Your task to perform on an android device: turn off improve location accuracy Image 0: 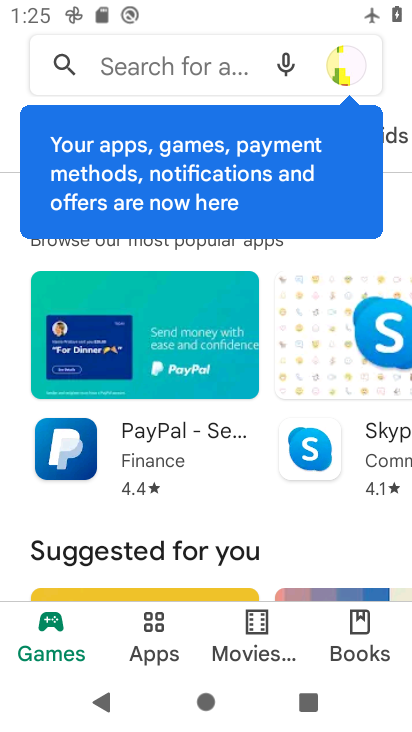
Step 0: press home button
Your task to perform on an android device: turn off improve location accuracy Image 1: 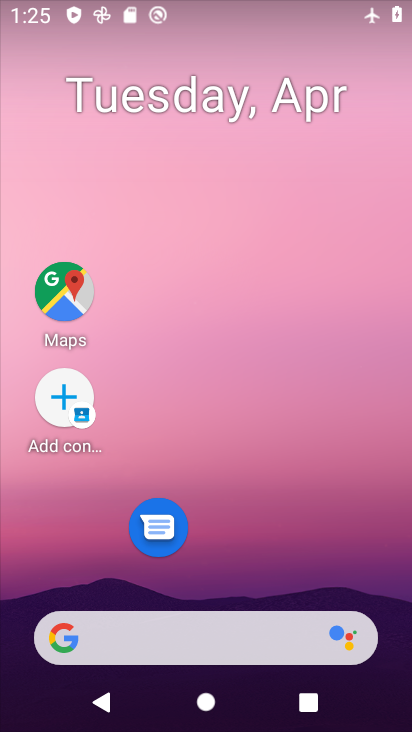
Step 1: drag from (240, 582) to (263, 54)
Your task to perform on an android device: turn off improve location accuracy Image 2: 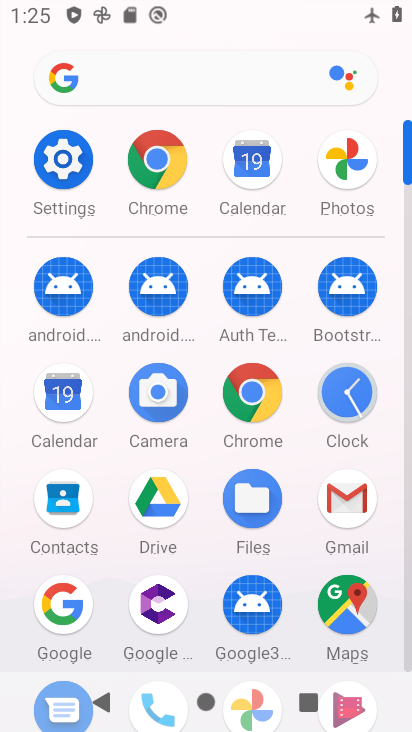
Step 2: click (64, 158)
Your task to perform on an android device: turn off improve location accuracy Image 3: 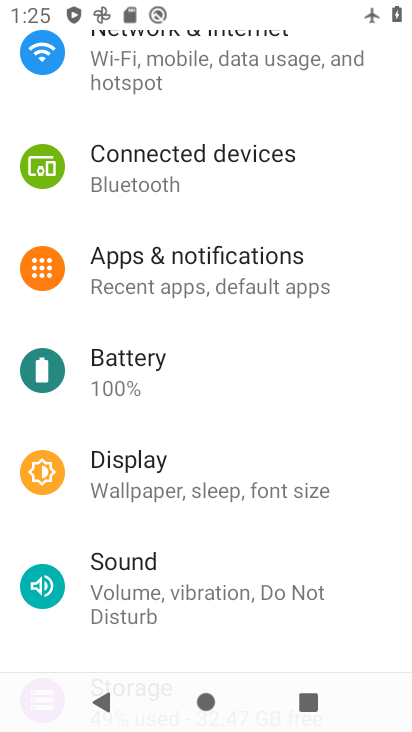
Step 3: drag from (236, 527) to (246, 408)
Your task to perform on an android device: turn off improve location accuracy Image 4: 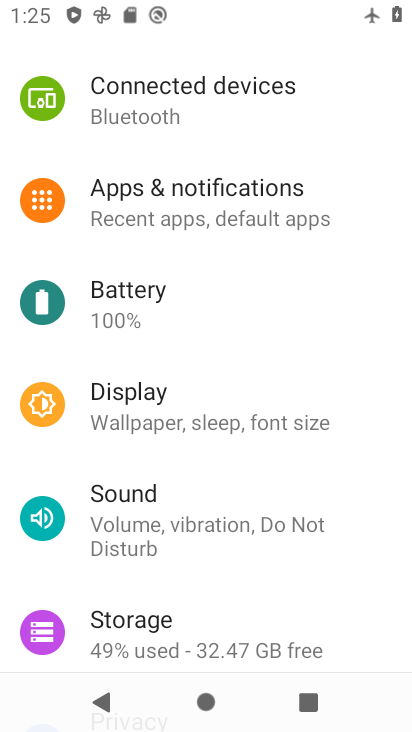
Step 4: drag from (220, 546) to (266, 389)
Your task to perform on an android device: turn off improve location accuracy Image 5: 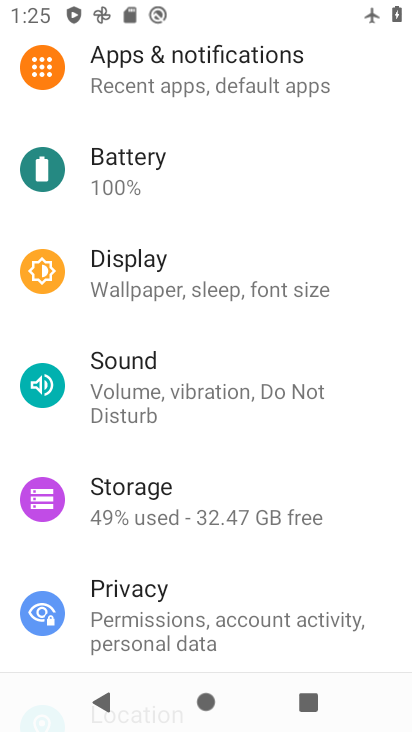
Step 5: drag from (229, 524) to (275, 387)
Your task to perform on an android device: turn off improve location accuracy Image 6: 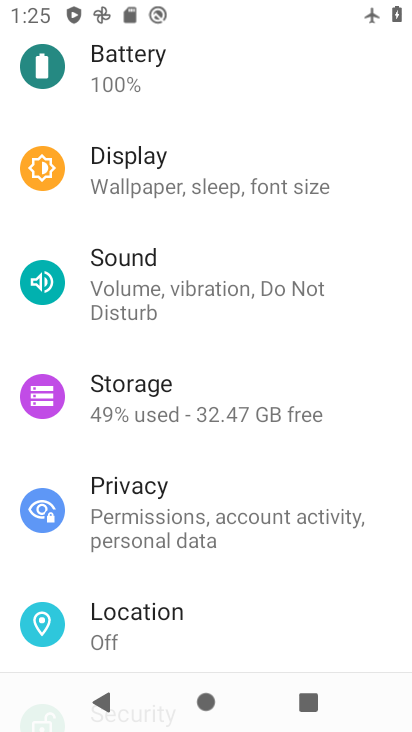
Step 6: drag from (233, 468) to (293, 342)
Your task to perform on an android device: turn off improve location accuracy Image 7: 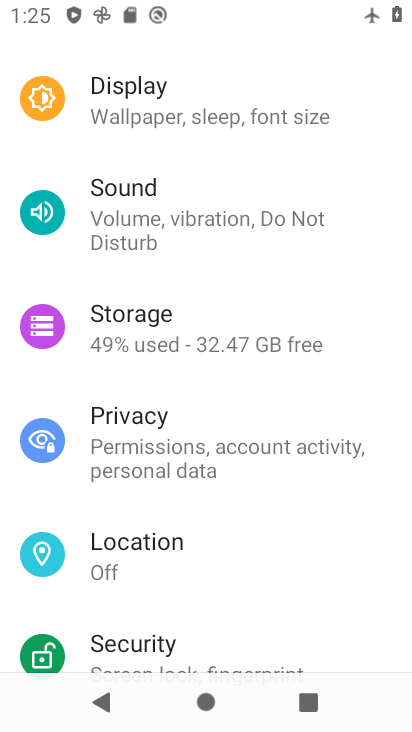
Step 7: click (188, 541)
Your task to perform on an android device: turn off improve location accuracy Image 8: 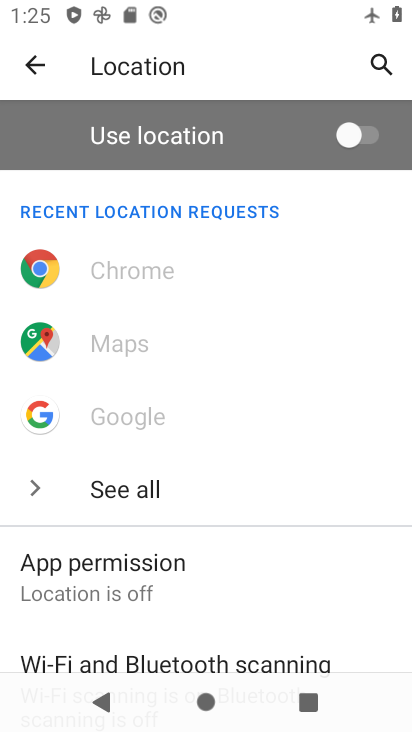
Step 8: drag from (214, 577) to (275, 383)
Your task to perform on an android device: turn off improve location accuracy Image 9: 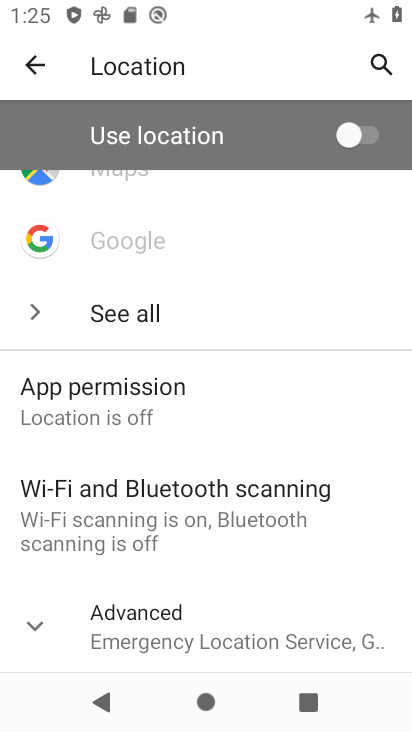
Step 9: drag from (215, 585) to (295, 388)
Your task to perform on an android device: turn off improve location accuracy Image 10: 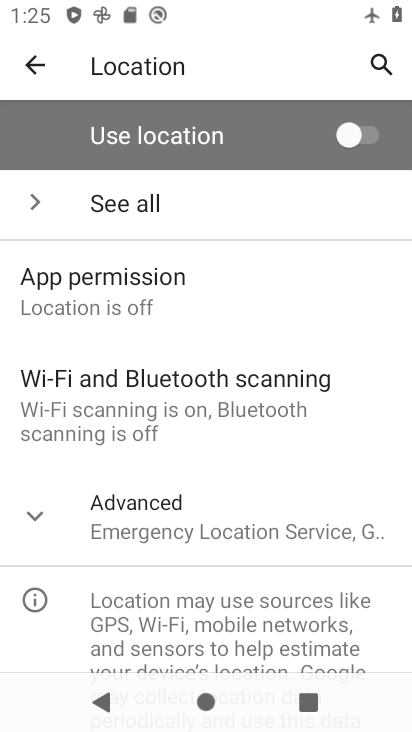
Step 10: click (217, 529)
Your task to perform on an android device: turn off improve location accuracy Image 11: 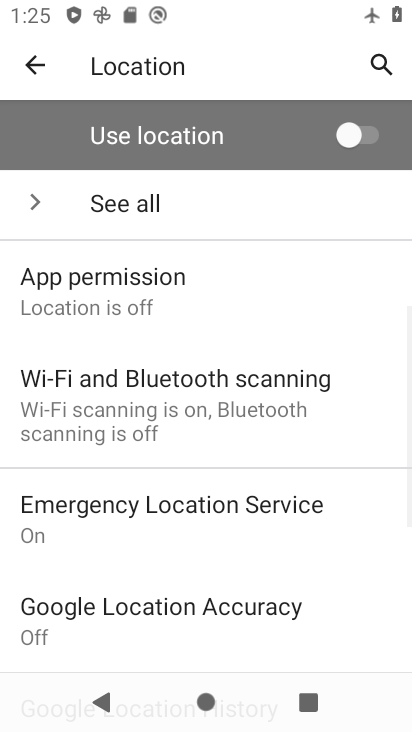
Step 11: drag from (215, 547) to (275, 434)
Your task to perform on an android device: turn off improve location accuracy Image 12: 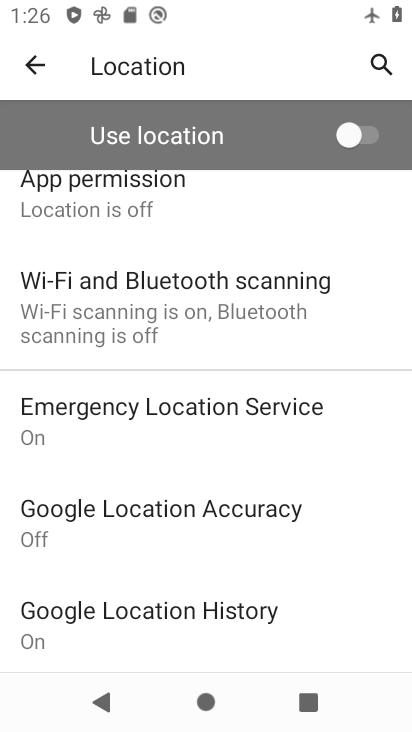
Step 12: click (224, 517)
Your task to perform on an android device: turn off improve location accuracy Image 13: 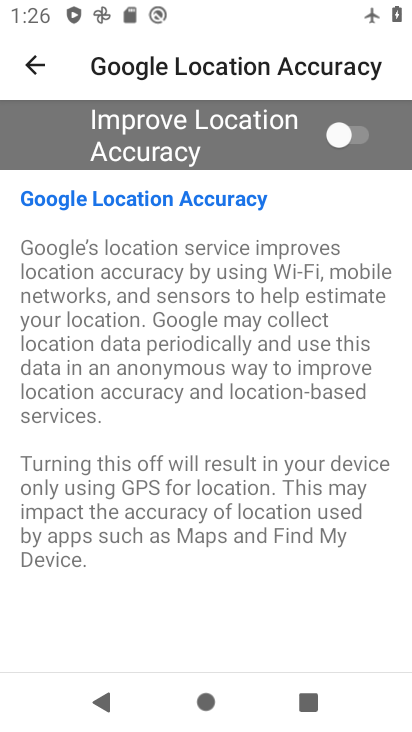
Step 13: task complete